Your task to perform on an android device: Open Youtube and go to "Your channel" Image 0: 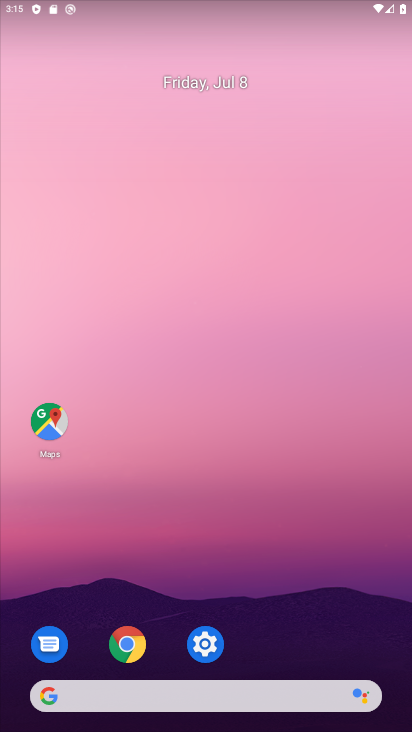
Step 0: click (229, 41)
Your task to perform on an android device: Open Youtube and go to "Your channel" Image 1: 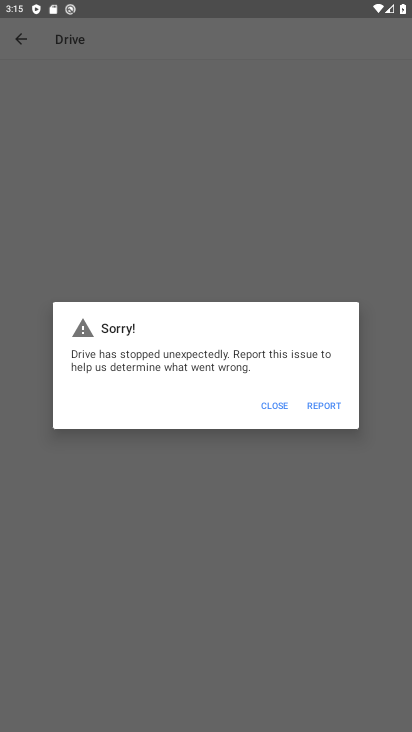
Step 1: press home button
Your task to perform on an android device: Open Youtube and go to "Your channel" Image 2: 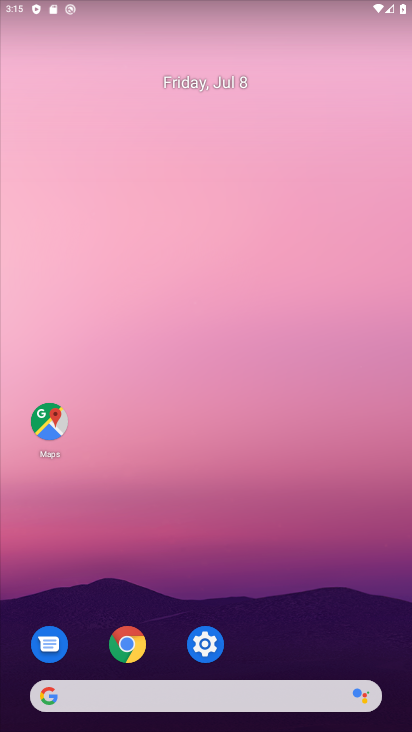
Step 2: drag from (31, 715) to (222, 182)
Your task to perform on an android device: Open Youtube and go to "Your channel" Image 3: 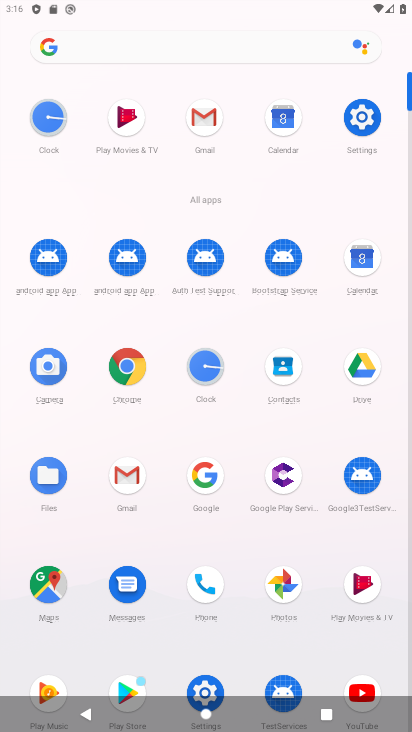
Step 3: click (364, 686)
Your task to perform on an android device: Open Youtube and go to "Your channel" Image 4: 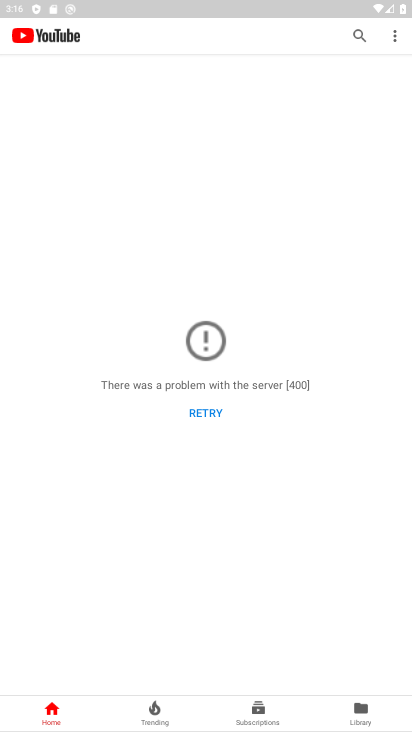
Step 4: click (398, 37)
Your task to perform on an android device: Open Youtube and go to "Your channel" Image 5: 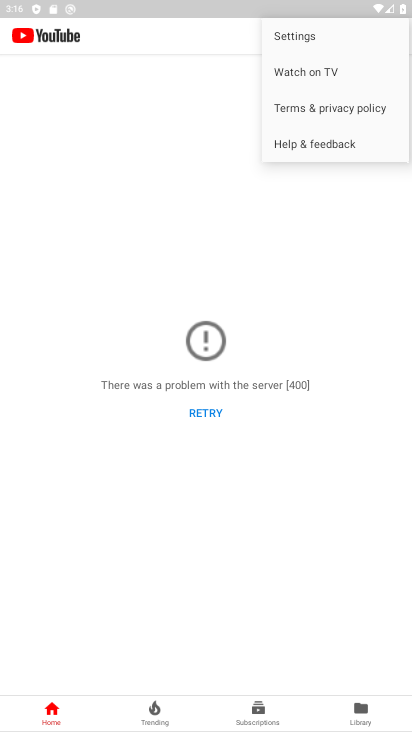
Step 5: click (308, 32)
Your task to perform on an android device: Open Youtube and go to "Your channel" Image 6: 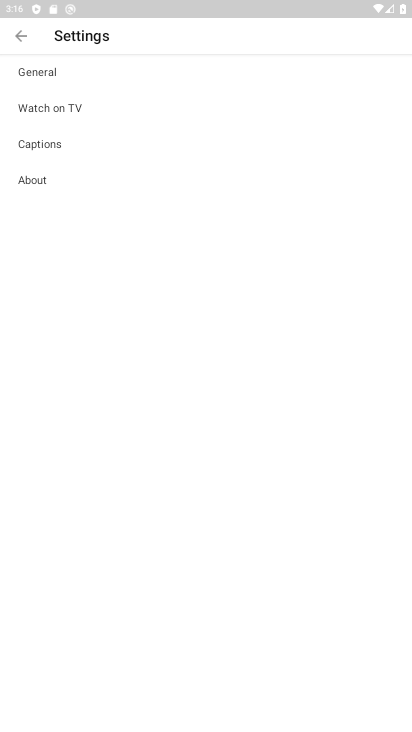
Step 6: click (13, 34)
Your task to perform on an android device: Open Youtube and go to "Your channel" Image 7: 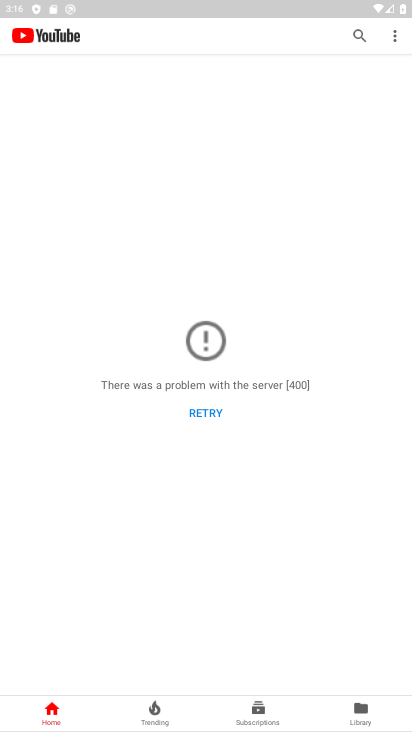
Step 7: click (346, 714)
Your task to perform on an android device: Open Youtube and go to "Your channel" Image 8: 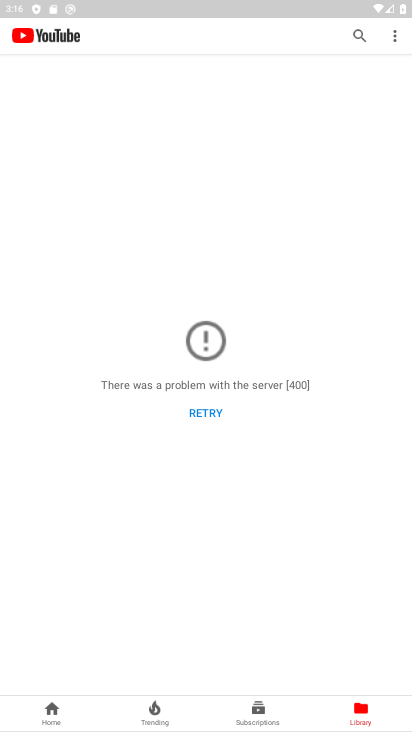
Step 8: click (350, 713)
Your task to perform on an android device: Open Youtube and go to "Your channel" Image 9: 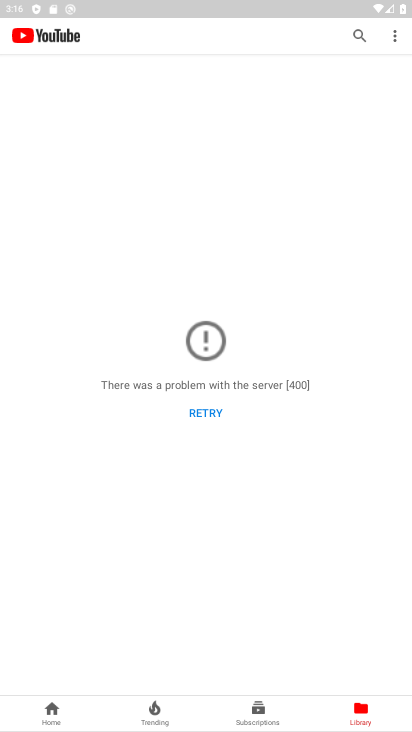
Step 9: task complete